Your task to perform on an android device: Go to wifi settings Image 0: 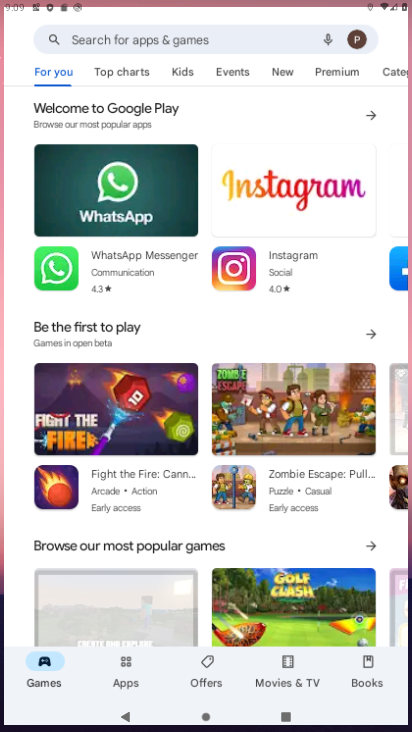
Step 0: click (125, 689)
Your task to perform on an android device: Go to wifi settings Image 1: 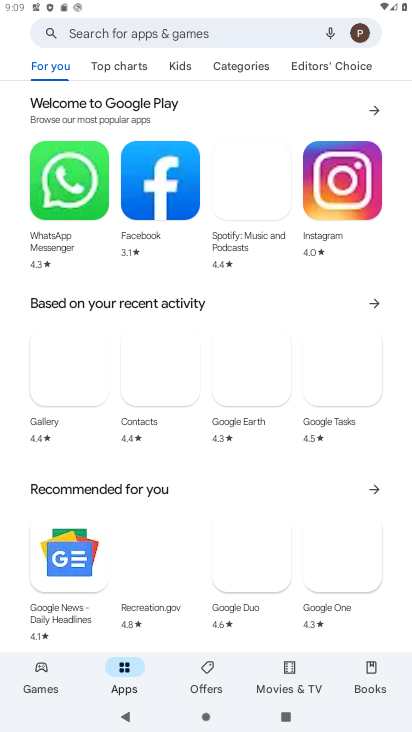
Step 1: drag from (148, 10) to (183, 486)
Your task to perform on an android device: Go to wifi settings Image 2: 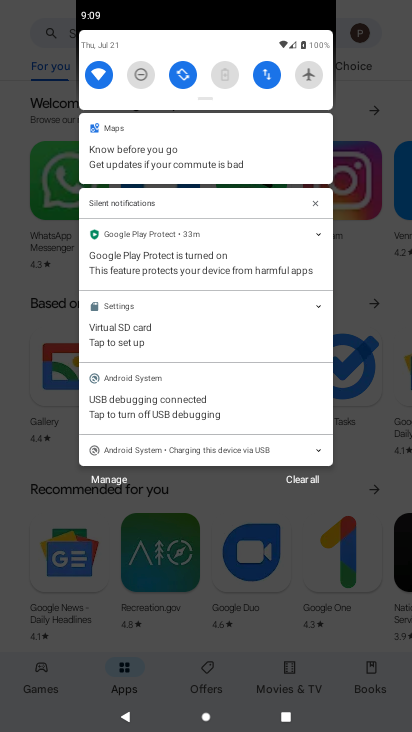
Step 2: click (94, 72)
Your task to perform on an android device: Go to wifi settings Image 3: 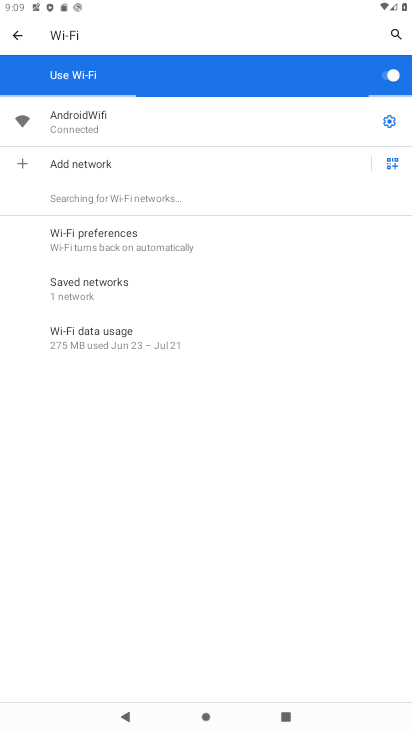
Step 3: task complete